Your task to perform on an android device: turn on wifi Image 0: 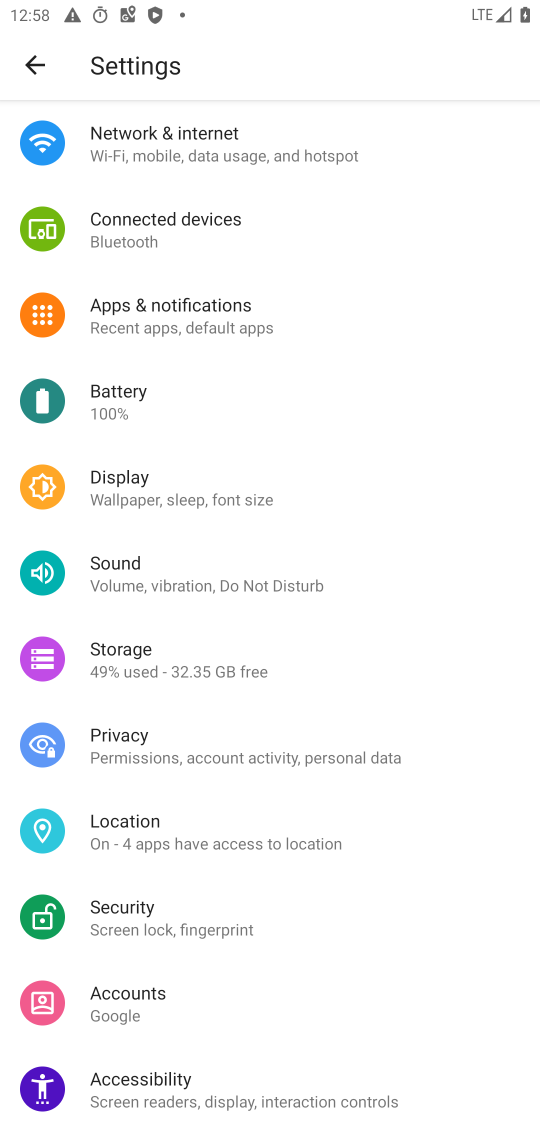
Step 0: click (188, 117)
Your task to perform on an android device: turn on wifi Image 1: 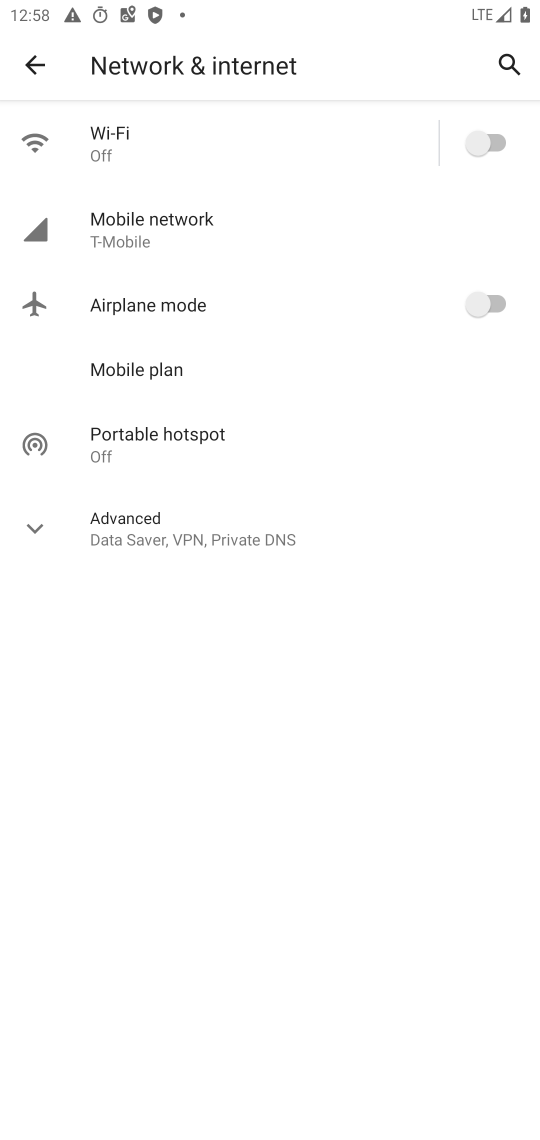
Step 1: task complete